Your task to perform on an android device: How much does a 3 bedroom apartment rent for in New York? Image 0: 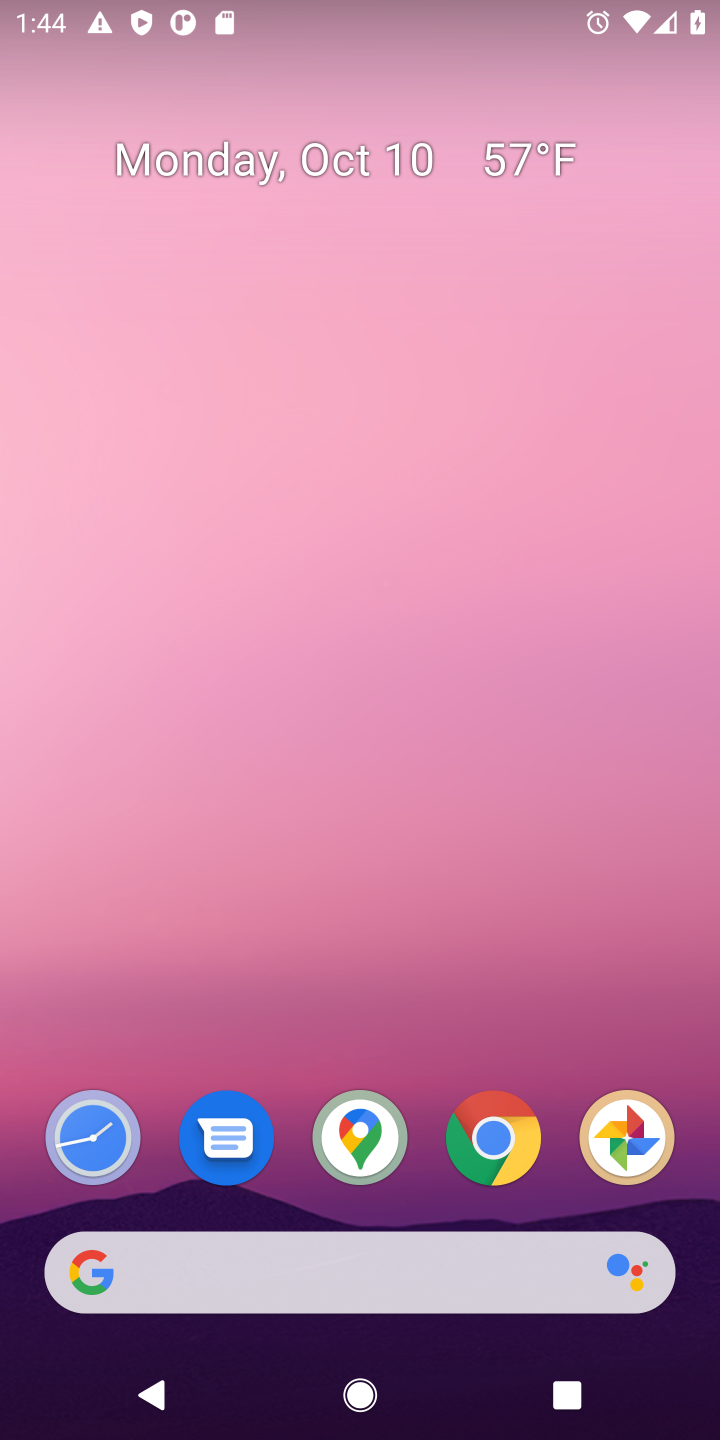
Step 0: click (253, 1271)
Your task to perform on an android device: How much does a 3 bedroom apartment rent for in New York? Image 1: 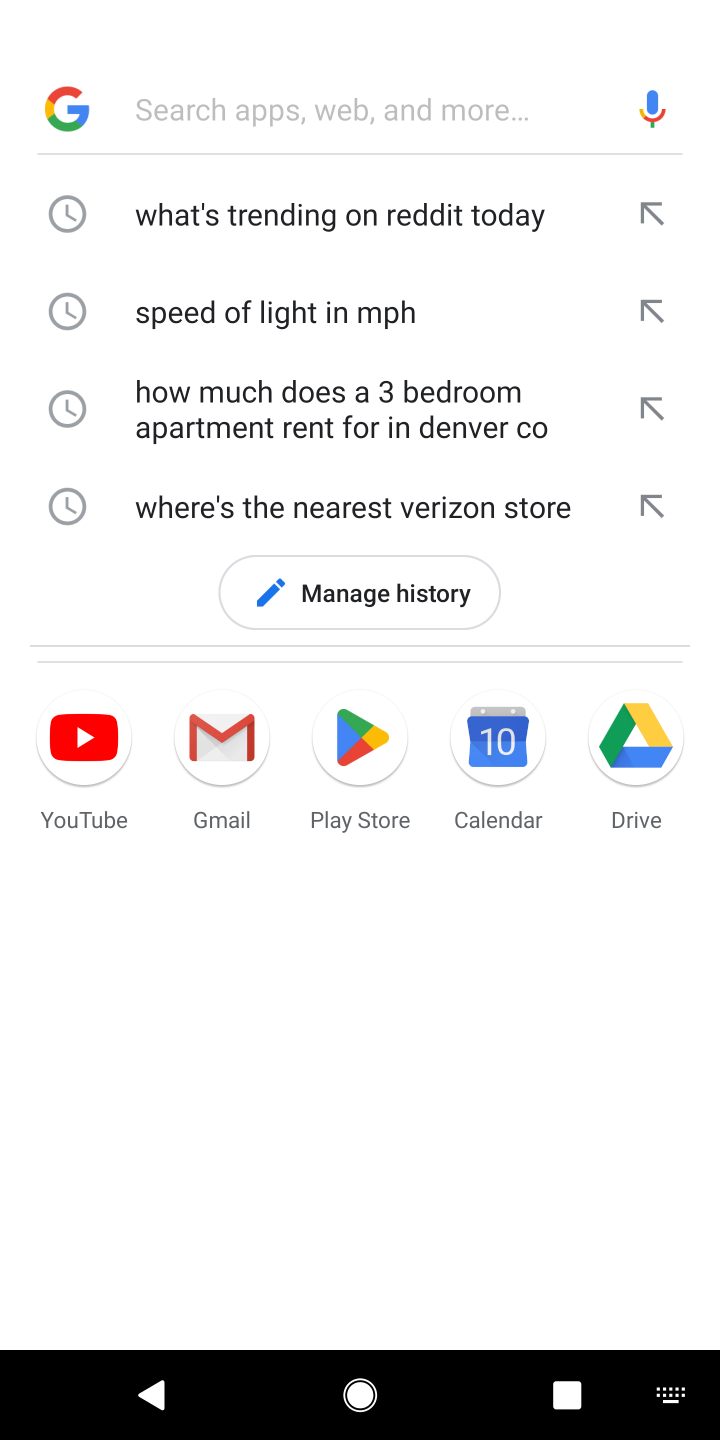
Step 1: type "How much does a 3 bedroom apartment rent for in New York?"
Your task to perform on an android device: How much does a 3 bedroom apartment rent for in New York? Image 2: 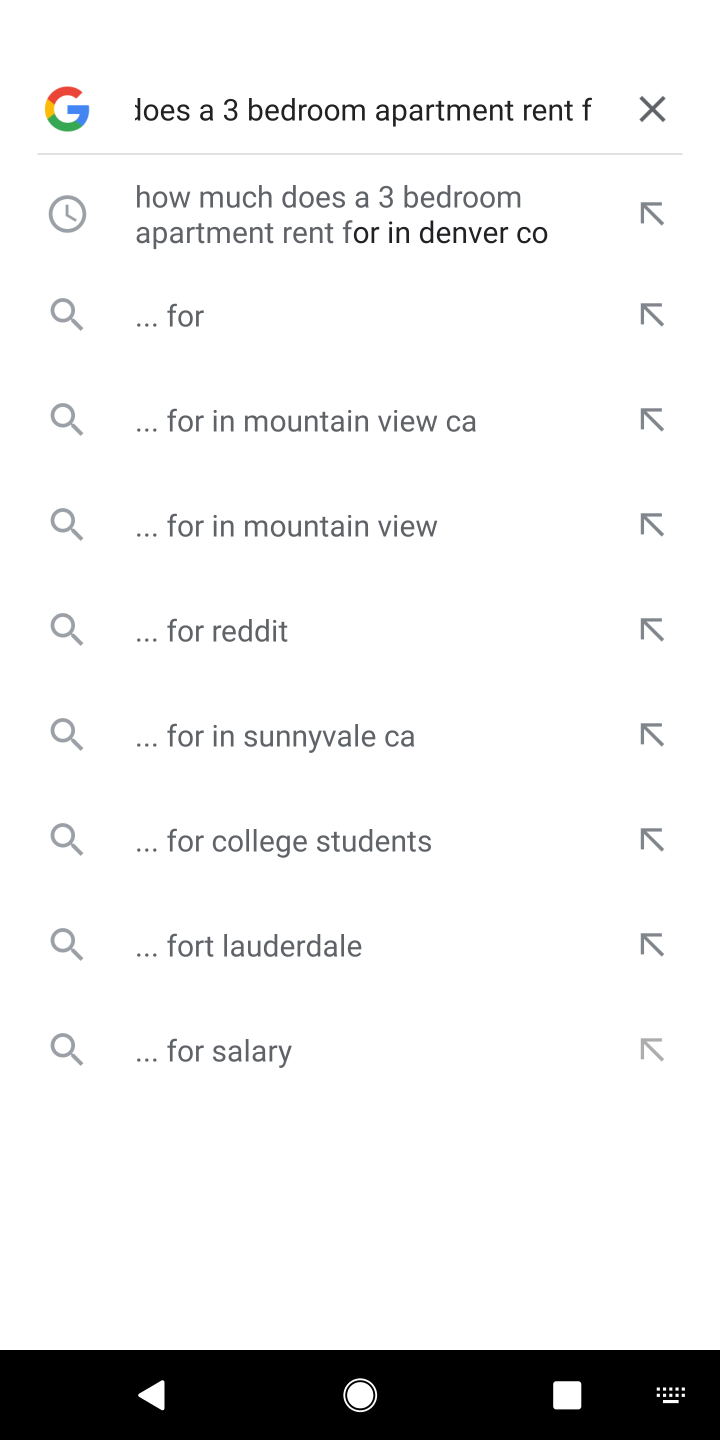
Step 2: click (272, 207)
Your task to perform on an android device: How much does a 3 bedroom apartment rent for in New York? Image 3: 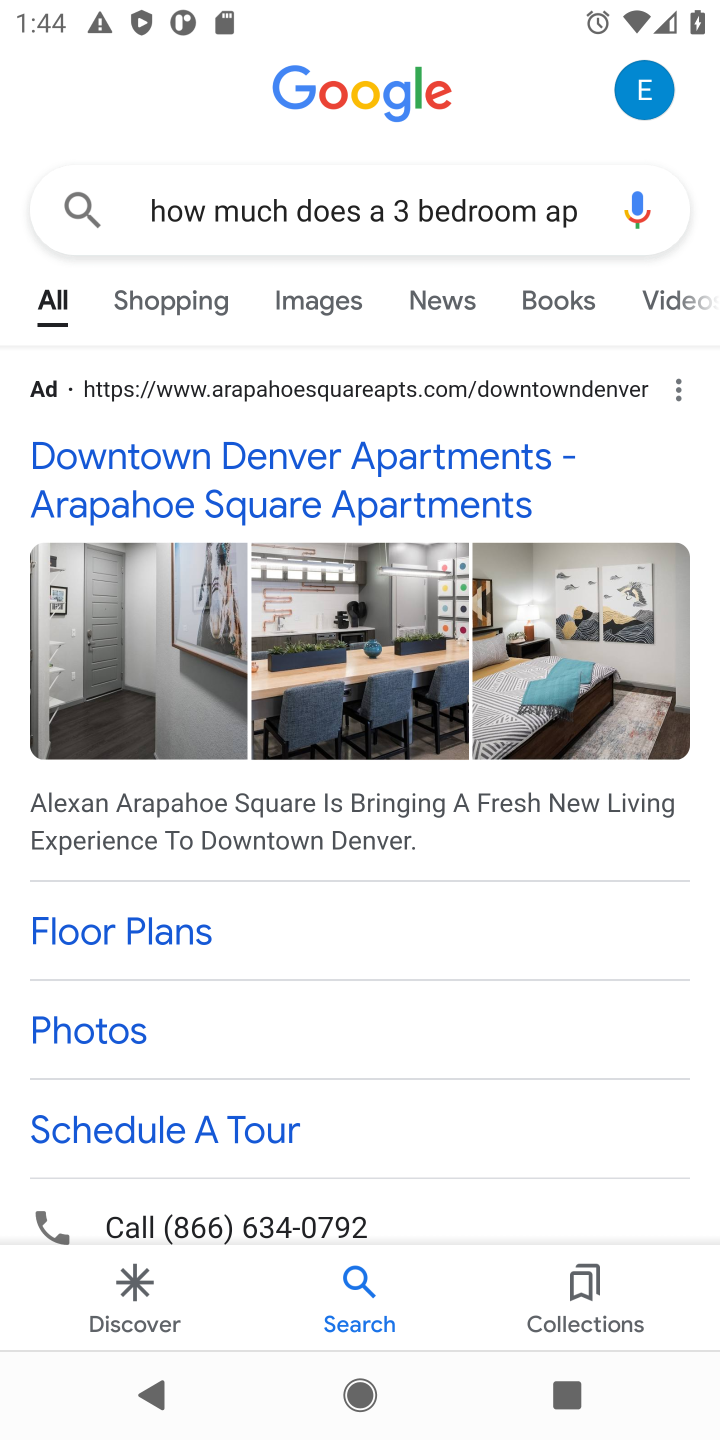
Step 3: click (288, 494)
Your task to perform on an android device: How much does a 3 bedroom apartment rent for in New York? Image 4: 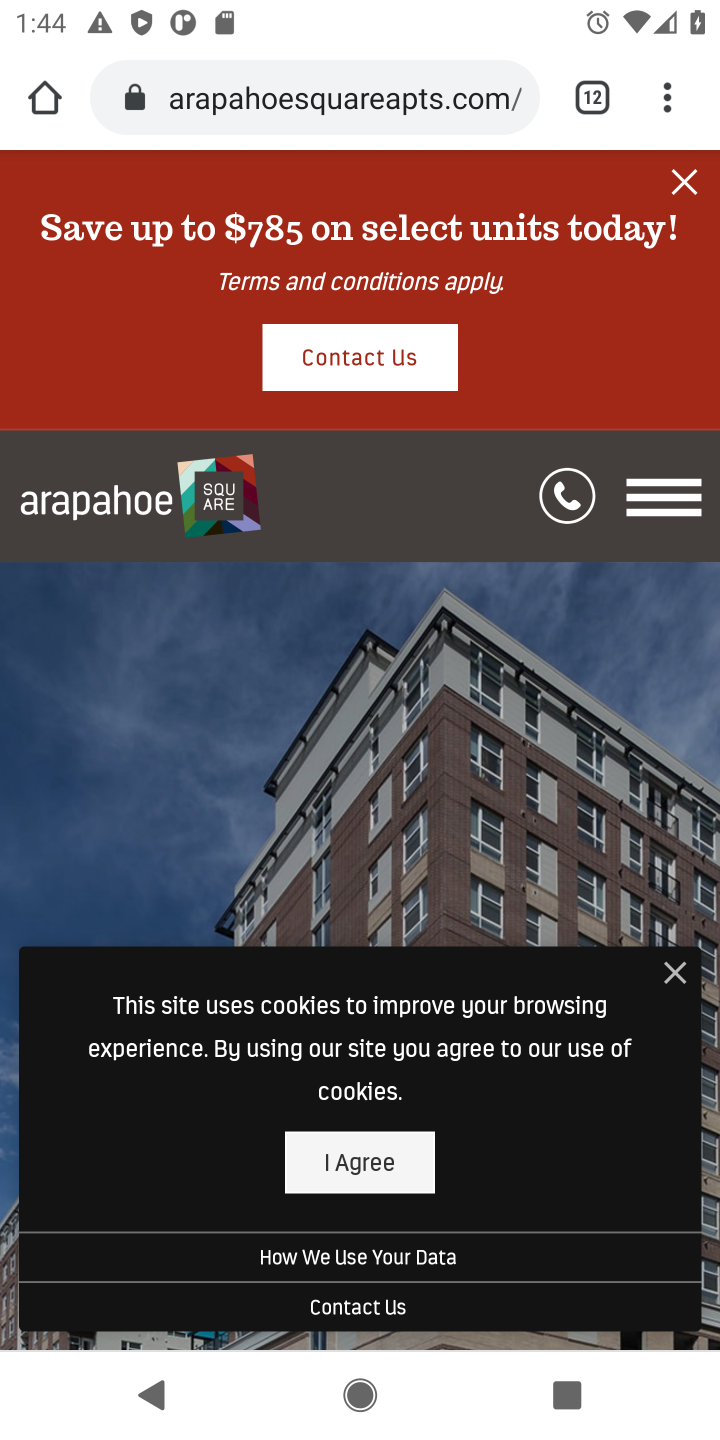
Step 4: click (379, 1154)
Your task to perform on an android device: How much does a 3 bedroom apartment rent for in New York? Image 5: 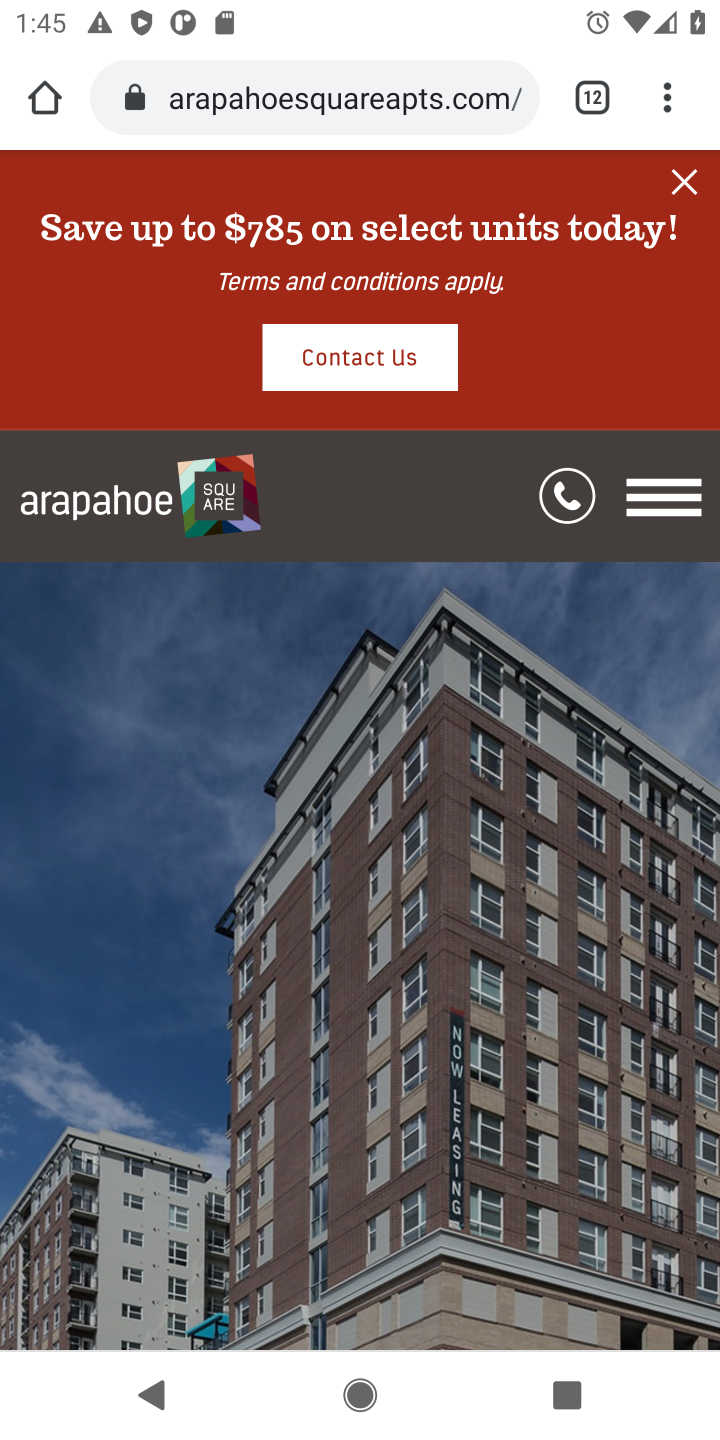
Step 5: task complete